Your task to perform on an android device: remove spam from my inbox in the gmail app Image 0: 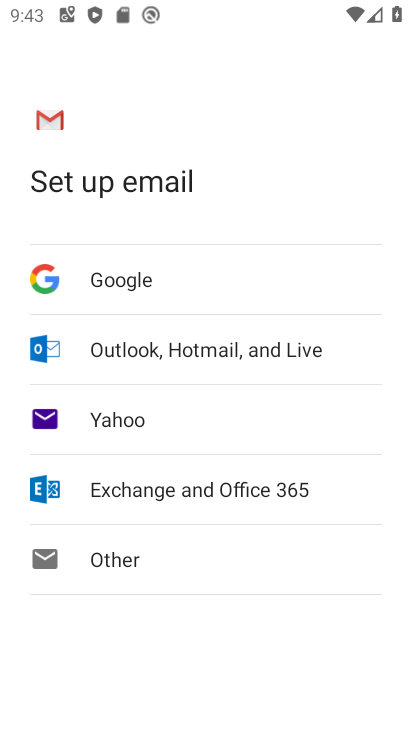
Step 0: press home button
Your task to perform on an android device: remove spam from my inbox in the gmail app Image 1: 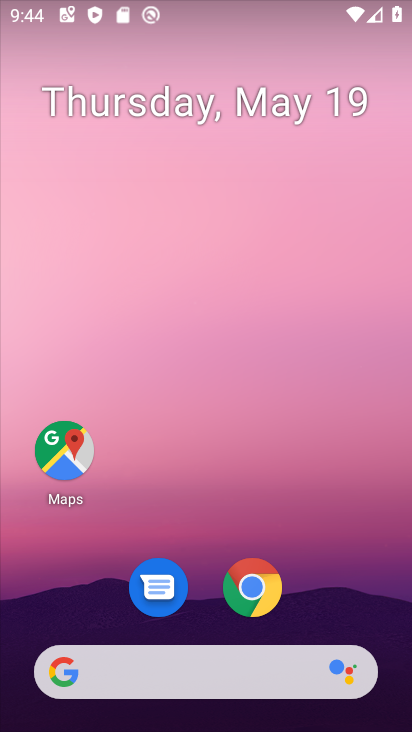
Step 1: drag from (205, 670) to (190, 335)
Your task to perform on an android device: remove spam from my inbox in the gmail app Image 2: 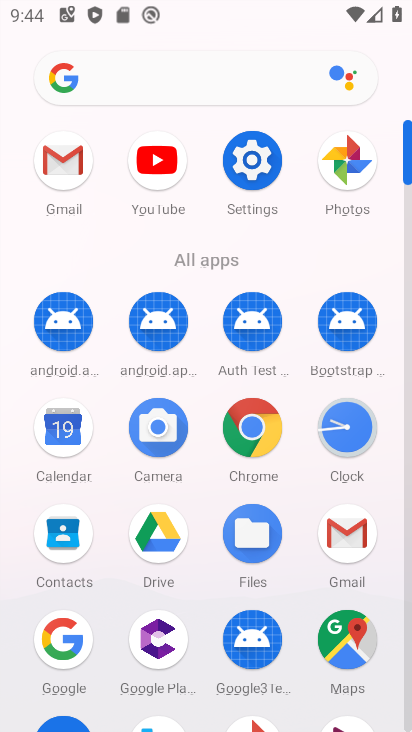
Step 2: click (52, 170)
Your task to perform on an android device: remove spam from my inbox in the gmail app Image 3: 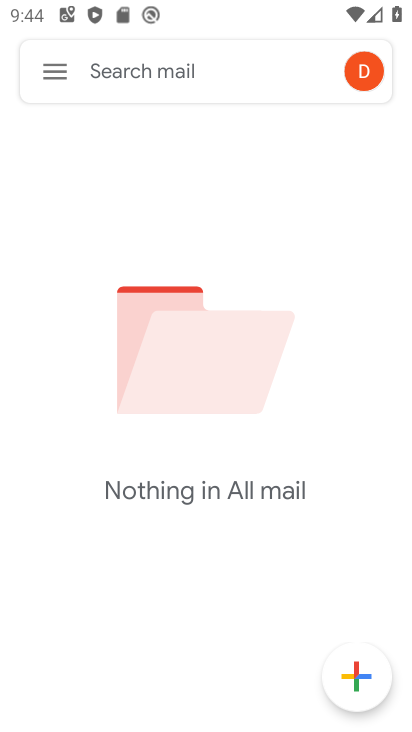
Step 3: click (33, 64)
Your task to perform on an android device: remove spam from my inbox in the gmail app Image 4: 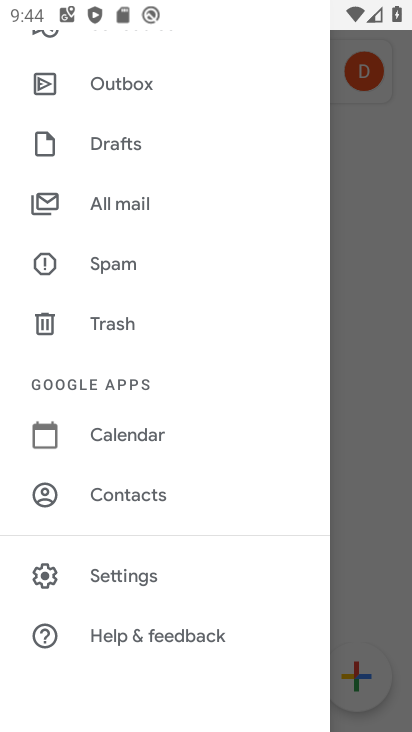
Step 4: click (133, 260)
Your task to perform on an android device: remove spam from my inbox in the gmail app Image 5: 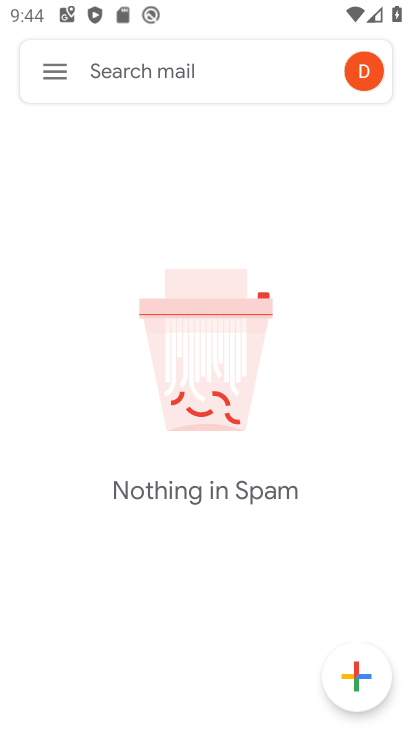
Step 5: task complete